Your task to perform on an android device: See recent photos Image 0: 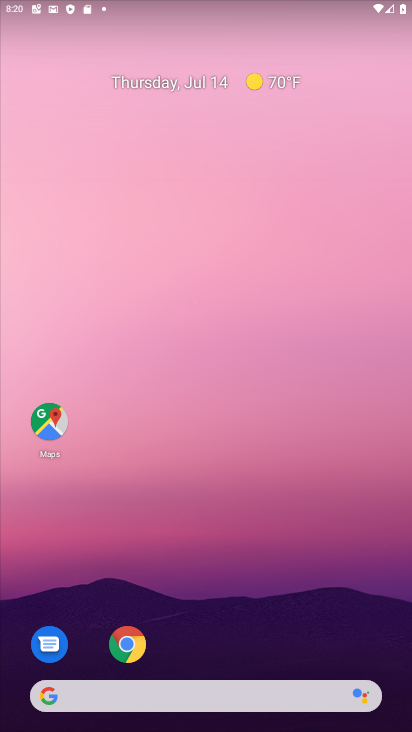
Step 0: drag from (276, 664) to (277, 242)
Your task to perform on an android device: See recent photos Image 1: 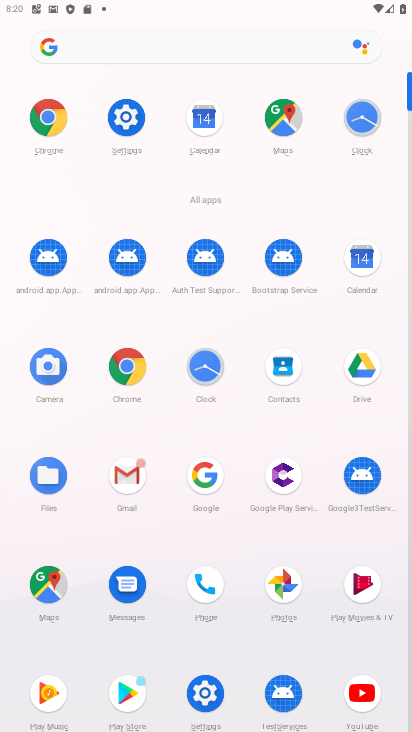
Step 1: click (280, 582)
Your task to perform on an android device: See recent photos Image 2: 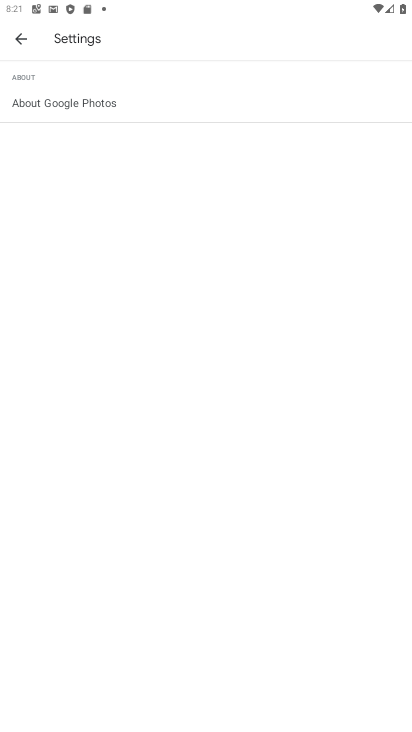
Step 2: click (23, 31)
Your task to perform on an android device: See recent photos Image 3: 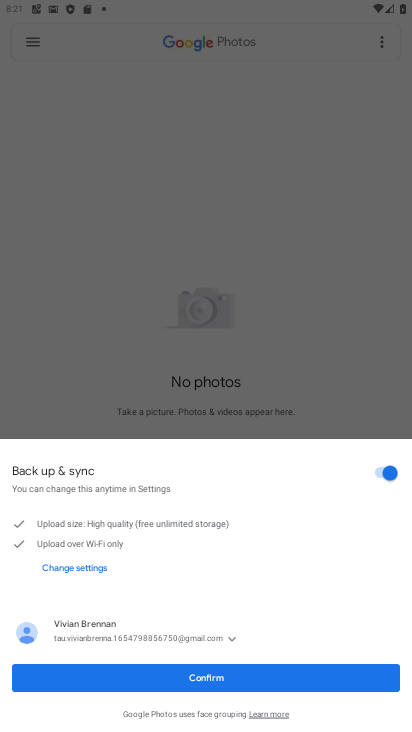
Step 3: click (267, 674)
Your task to perform on an android device: See recent photos Image 4: 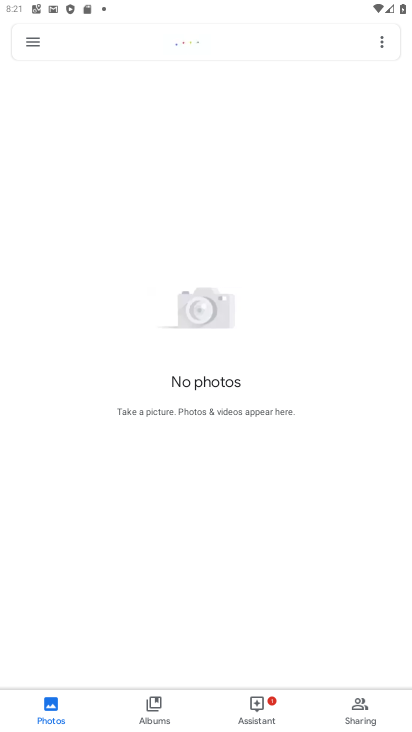
Step 4: click (154, 708)
Your task to perform on an android device: See recent photos Image 5: 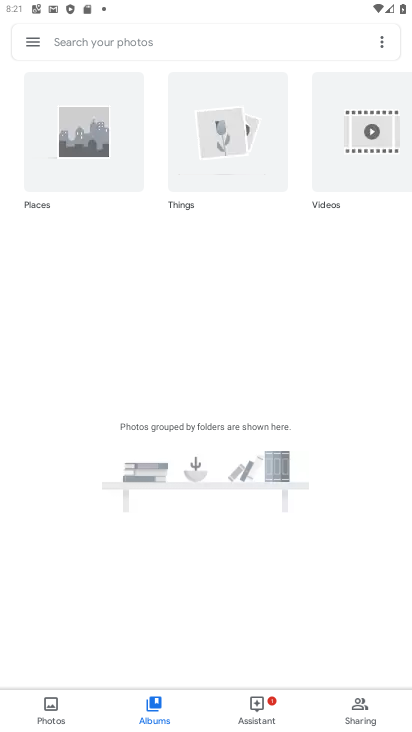
Step 5: task complete